Your task to perform on an android device: Open the phone app and click the voicemail tab. Image 0: 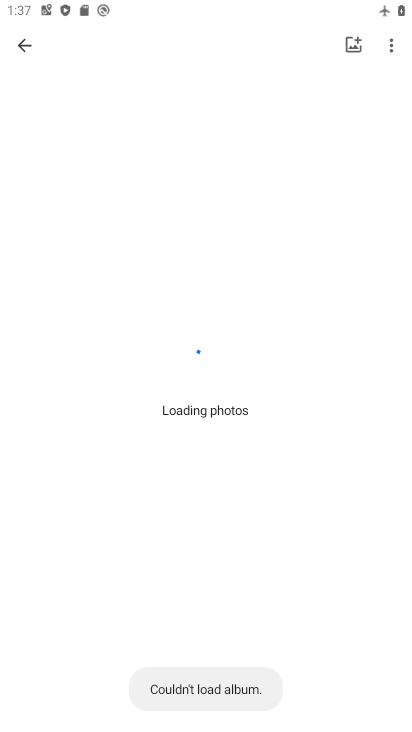
Step 0: press home button
Your task to perform on an android device: Open the phone app and click the voicemail tab. Image 1: 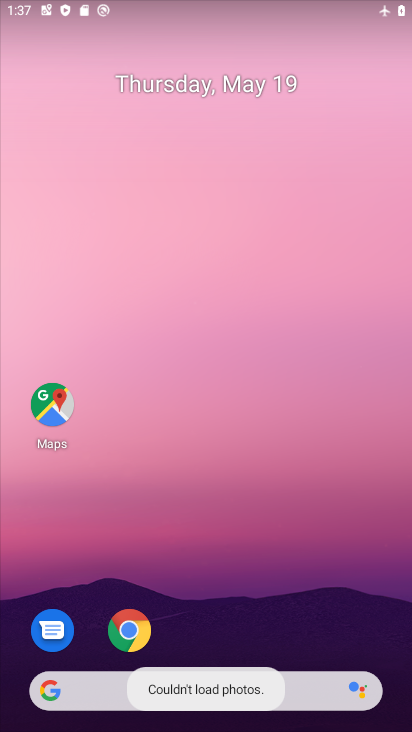
Step 1: drag from (208, 658) to (160, 9)
Your task to perform on an android device: Open the phone app and click the voicemail tab. Image 2: 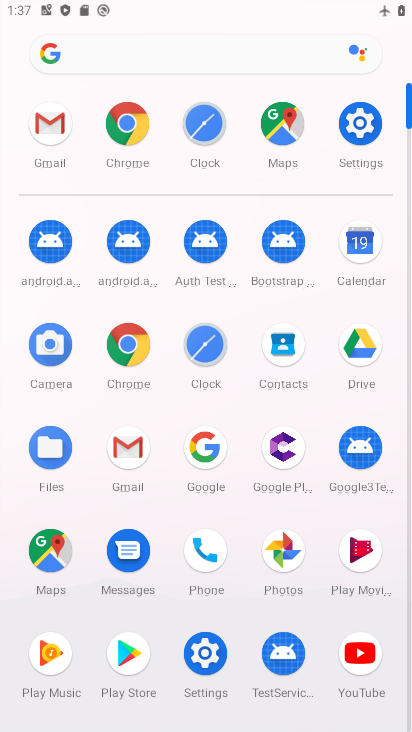
Step 2: click (193, 555)
Your task to perform on an android device: Open the phone app and click the voicemail tab. Image 3: 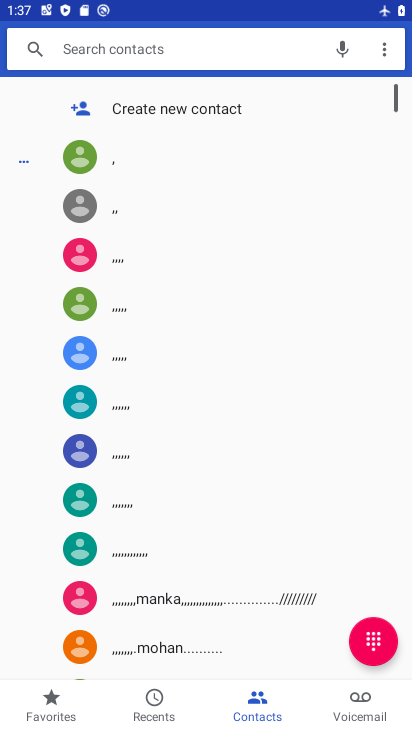
Step 3: click (371, 711)
Your task to perform on an android device: Open the phone app and click the voicemail tab. Image 4: 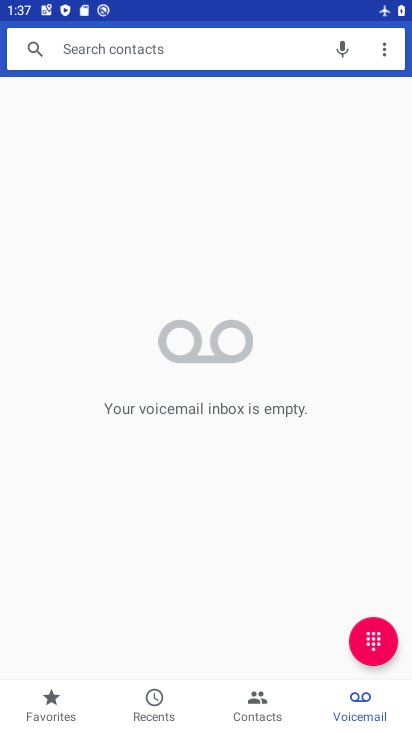
Step 4: task complete